Your task to perform on an android device: toggle notification dots Image 0: 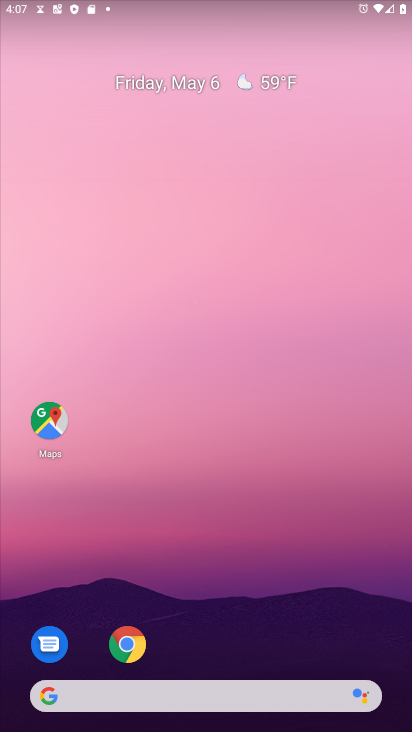
Step 0: drag from (221, 590) to (220, 60)
Your task to perform on an android device: toggle notification dots Image 1: 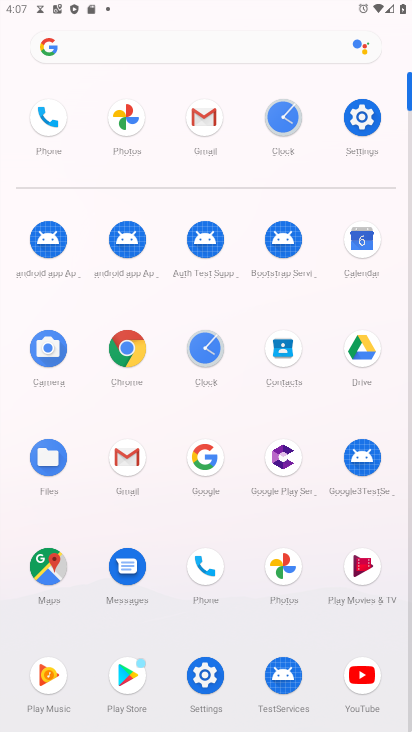
Step 1: click (201, 673)
Your task to perform on an android device: toggle notification dots Image 2: 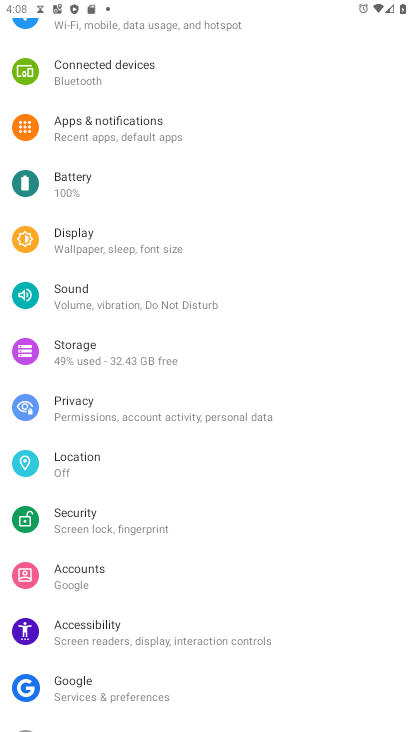
Step 2: drag from (164, 215) to (192, 363)
Your task to perform on an android device: toggle notification dots Image 3: 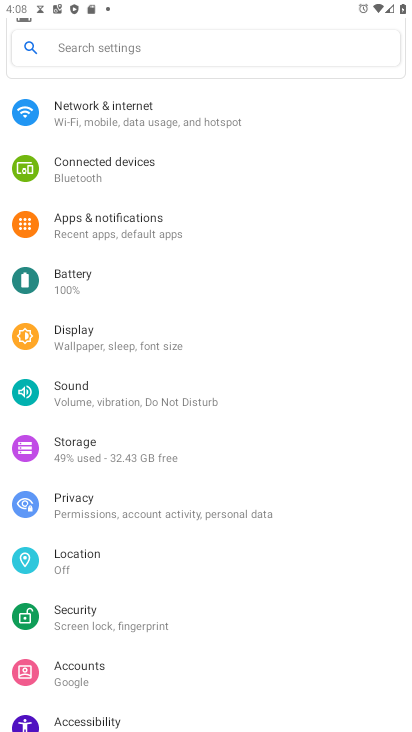
Step 3: click (151, 220)
Your task to perform on an android device: toggle notification dots Image 4: 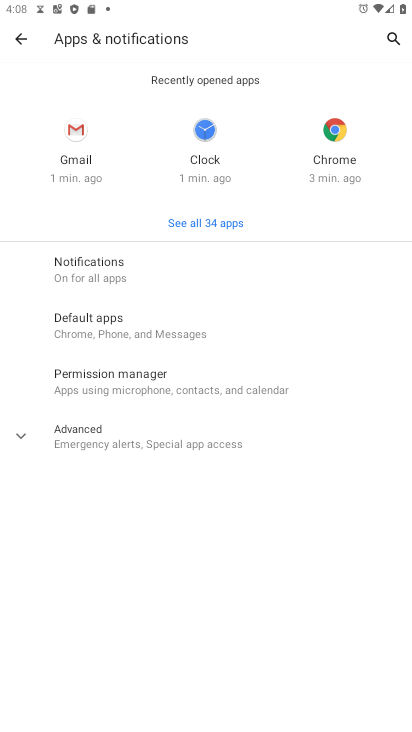
Step 4: click (108, 268)
Your task to perform on an android device: toggle notification dots Image 5: 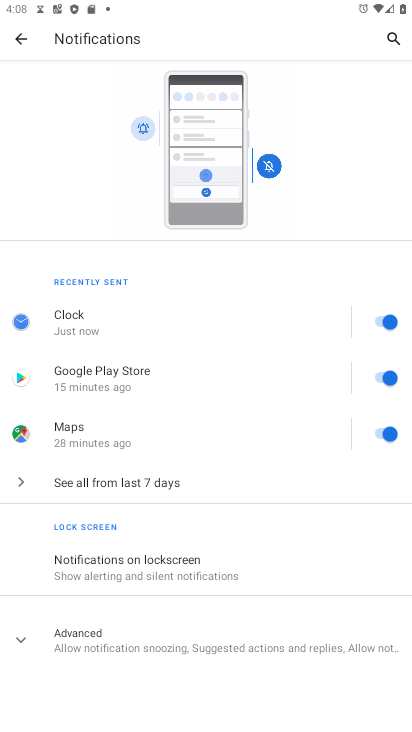
Step 5: click (137, 644)
Your task to perform on an android device: toggle notification dots Image 6: 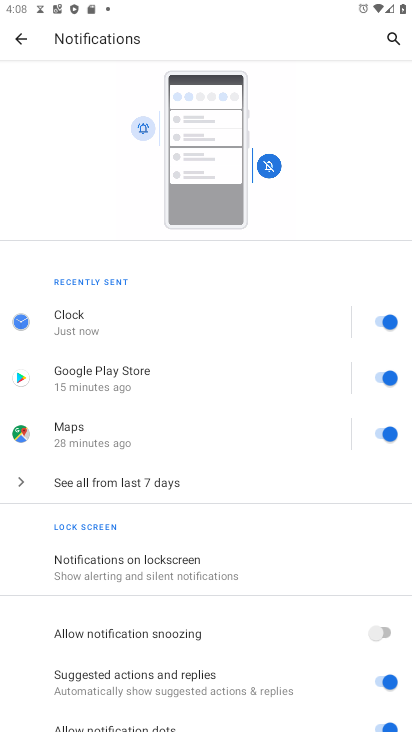
Step 6: drag from (226, 564) to (223, 419)
Your task to perform on an android device: toggle notification dots Image 7: 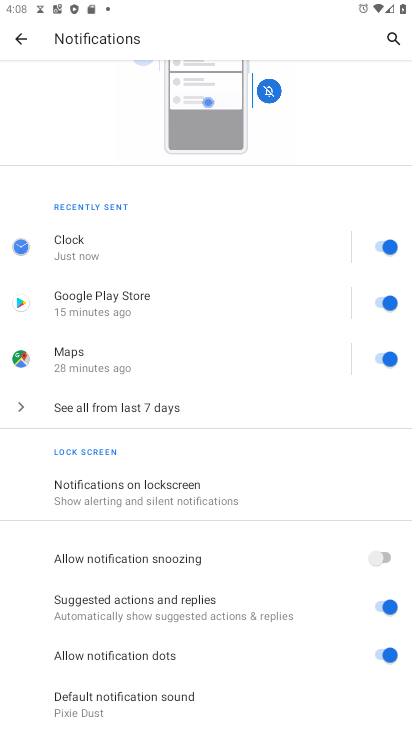
Step 7: drag from (194, 637) to (230, 519)
Your task to perform on an android device: toggle notification dots Image 8: 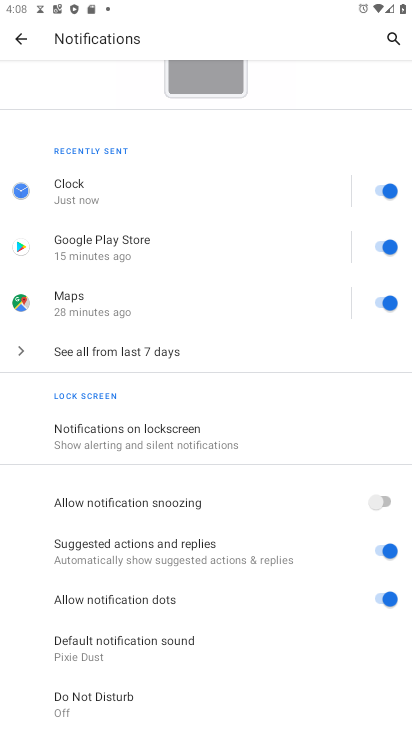
Step 8: click (390, 589)
Your task to perform on an android device: toggle notification dots Image 9: 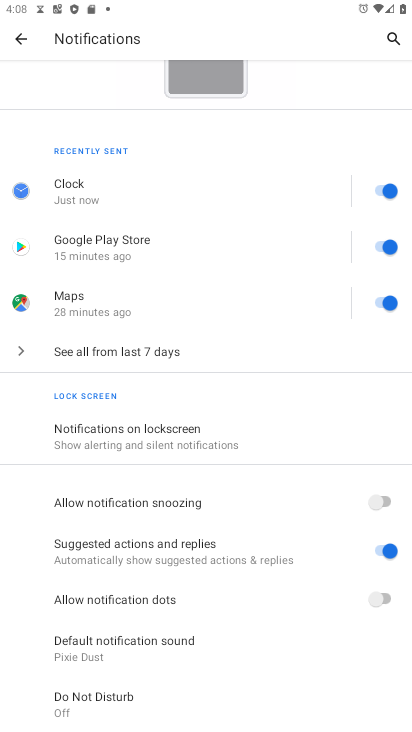
Step 9: task complete